Your task to perform on an android device: Do I have any events today? Image 0: 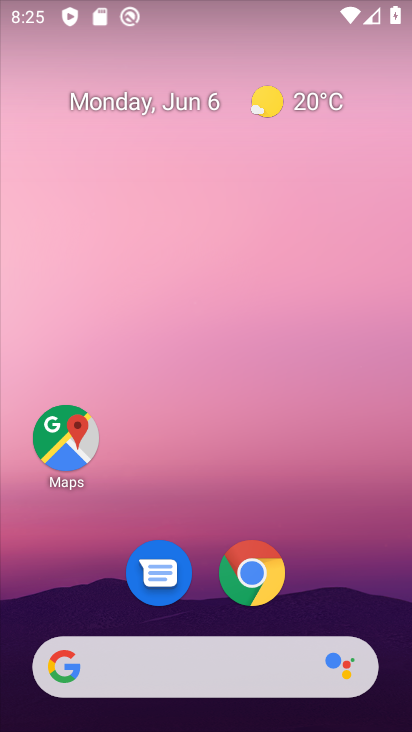
Step 0: drag from (306, 719) to (225, 264)
Your task to perform on an android device: Do I have any events today? Image 1: 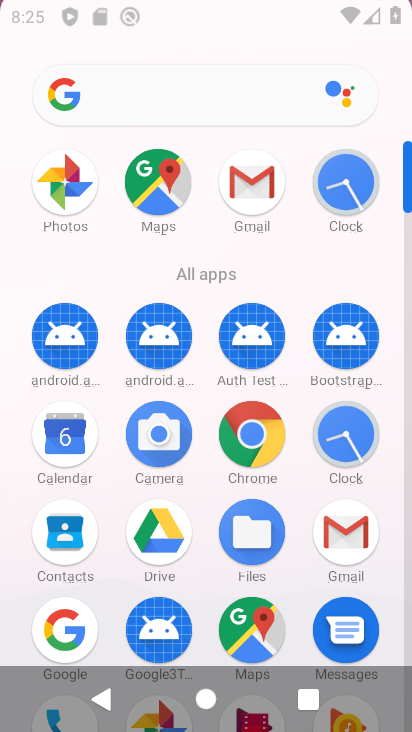
Step 1: drag from (277, 487) to (219, 101)
Your task to perform on an android device: Do I have any events today? Image 2: 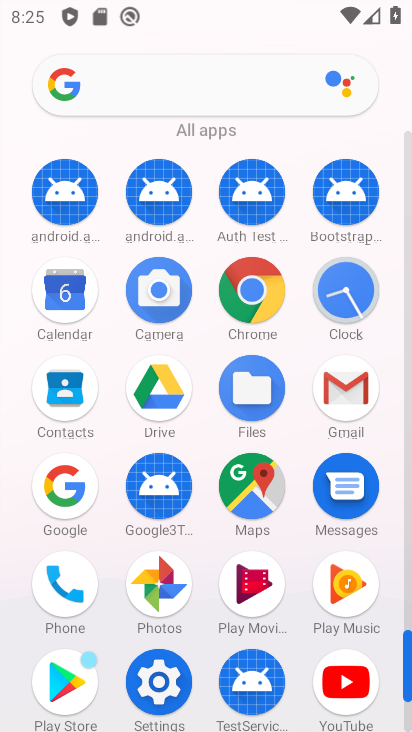
Step 2: click (67, 296)
Your task to perform on an android device: Do I have any events today? Image 3: 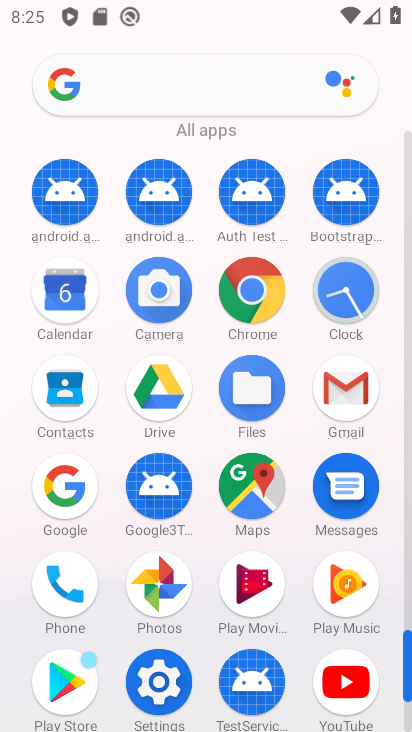
Step 3: click (67, 296)
Your task to perform on an android device: Do I have any events today? Image 4: 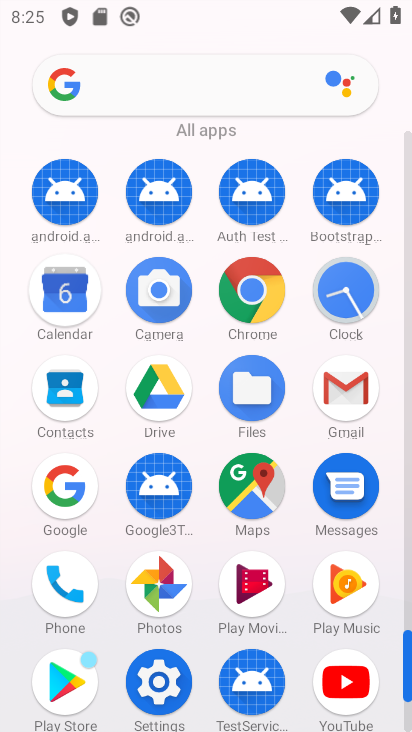
Step 4: click (62, 297)
Your task to perform on an android device: Do I have any events today? Image 5: 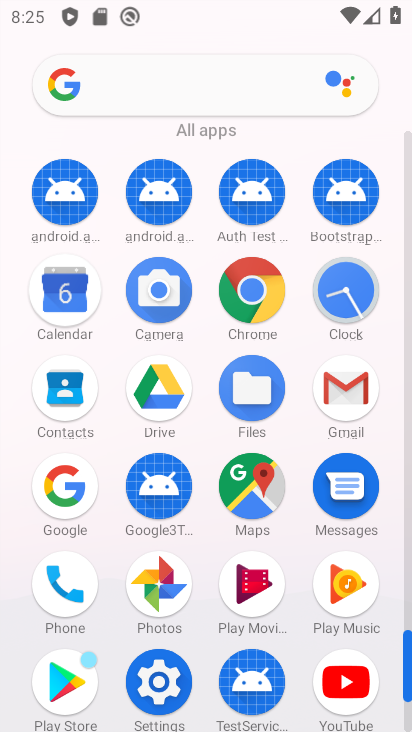
Step 5: click (59, 294)
Your task to perform on an android device: Do I have any events today? Image 6: 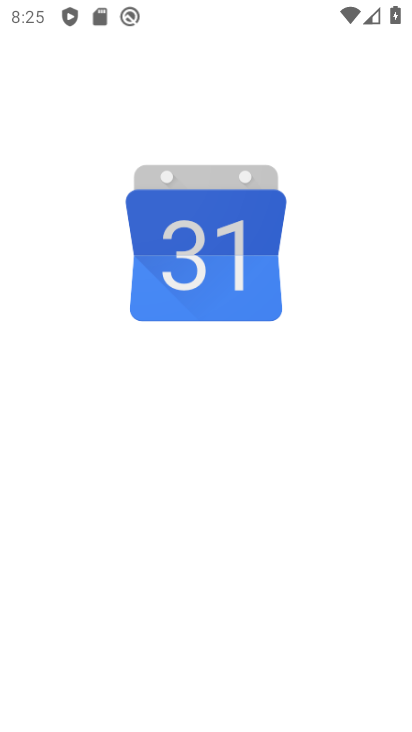
Step 6: click (56, 292)
Your task to perform on an android device: Do I have any events today? Image 7: 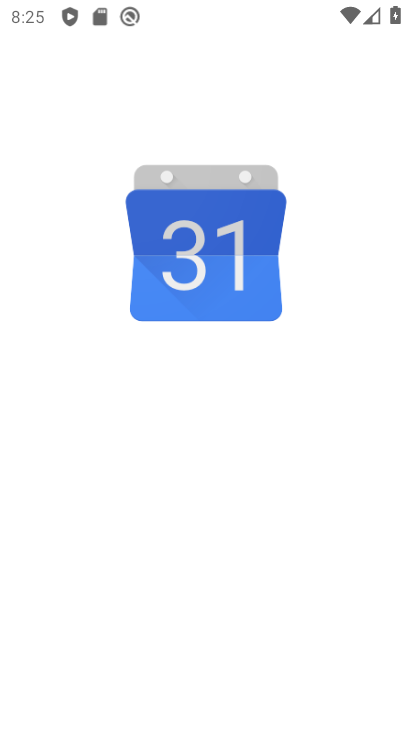
Step 7: click (54, 292)
Your task to perform on an android device: Do I have any events today? Image 8: 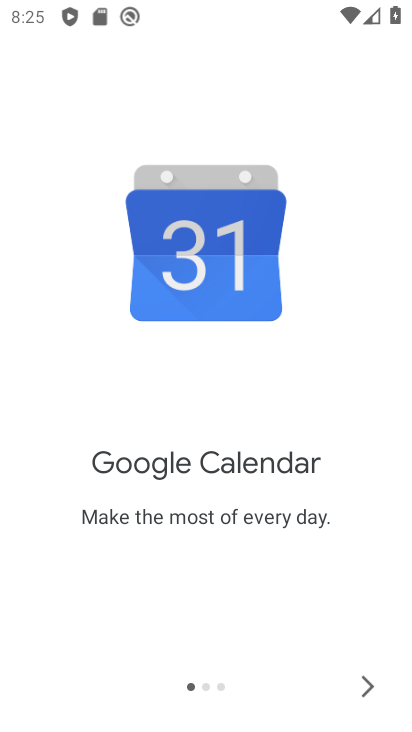
Step 8: click (365, 681)
Your task to perform on an android device: Do I have any events today? Image 9: 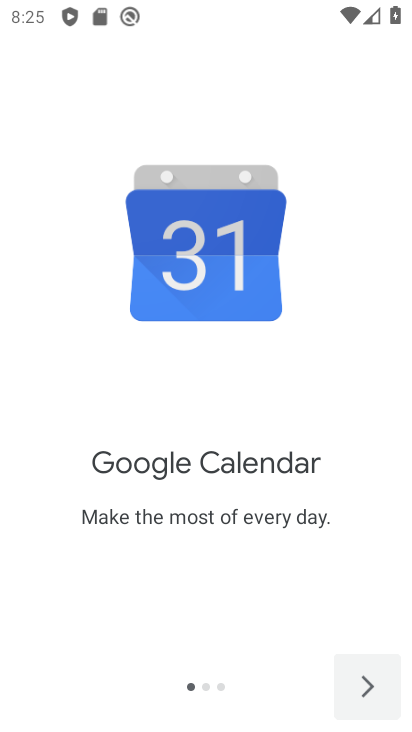
Step 9: click (365, 681)
Your task to perform on an android device: Do I have any events today? Image 10: 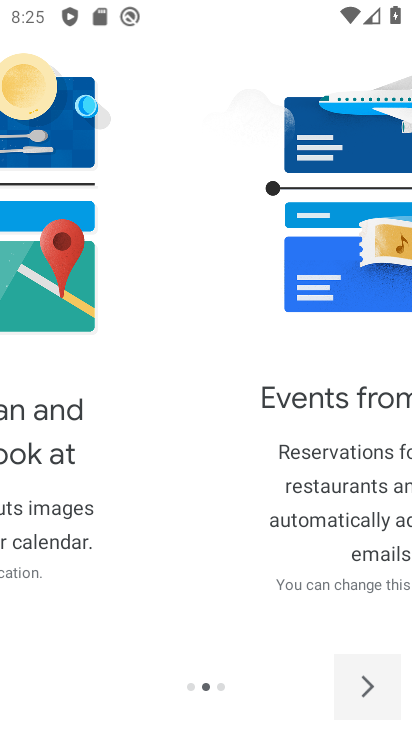
Step 10: click (368, 681)
Your task to perform on an android device: Do I have any events today? Image 11: 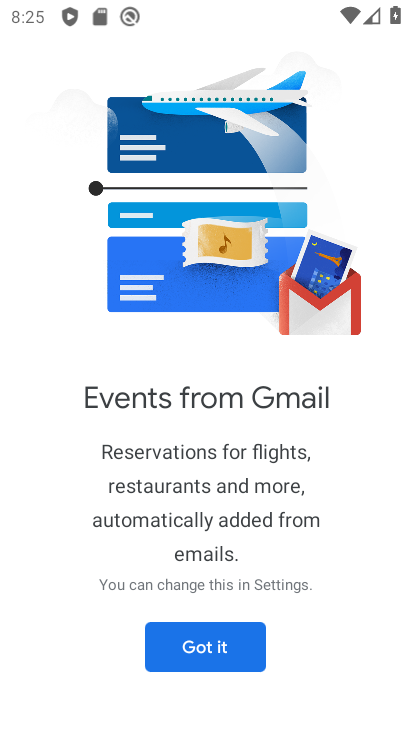
Step 11: click (369, 681)
Your task to perform on an android device: Do I have any events today? Image 12: 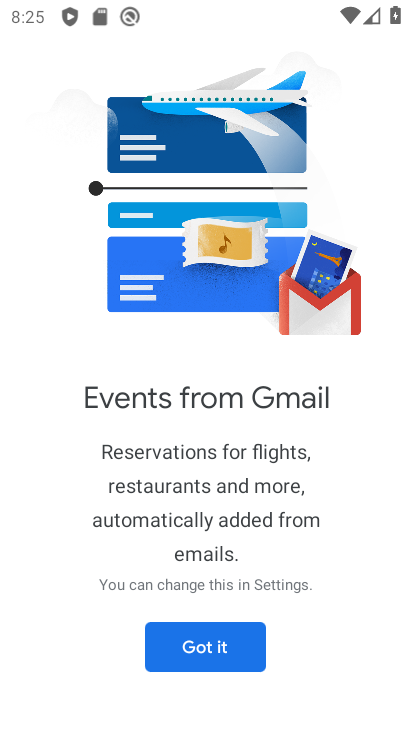
Step 12: click (369, 681)
Your task to perform on an android device: Do I have any events today? Image 13: 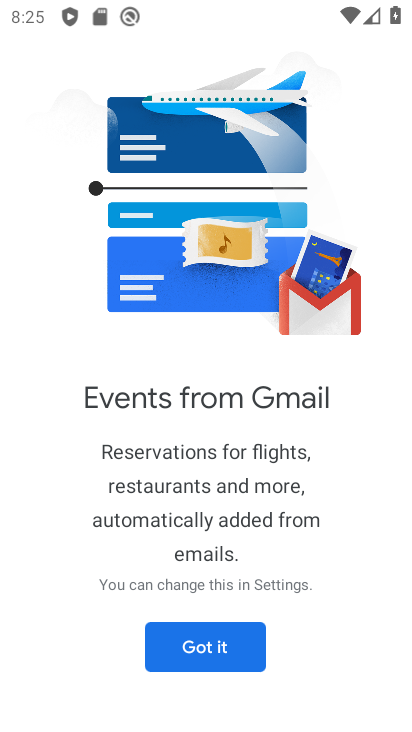
Step 13: click (191, 640)
Your task to perform on an android device: Do I have any events today? Image 14: 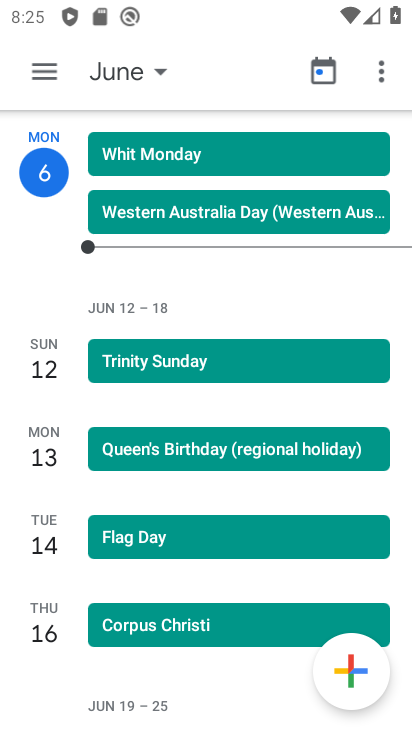
Step 14: click (158, 74)
Your task to perform on an android device: Do I have any events today? Image 15: 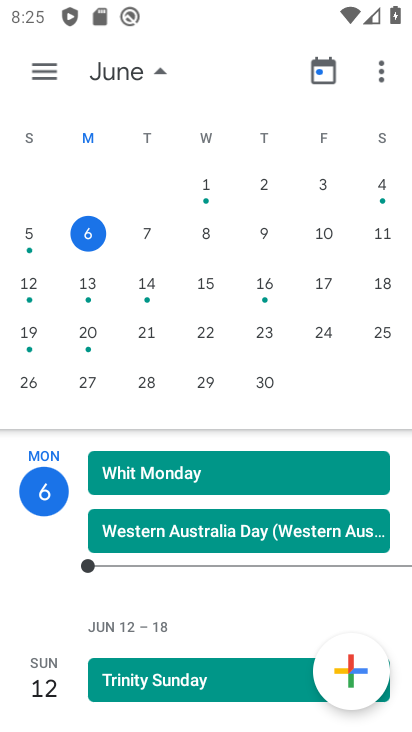
Step 15: click (158, 74)
Your task to perform on an android device: Do I have any events today? Image 16: 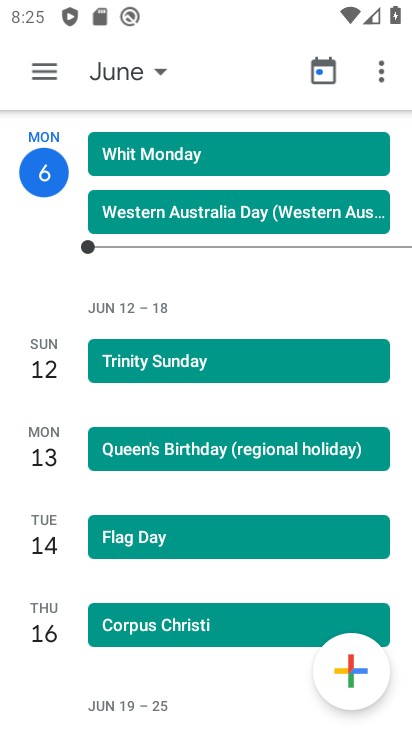
Step 16: click (154, 77)
Your task to perform on an android device: Do I have any events today? Image 17: 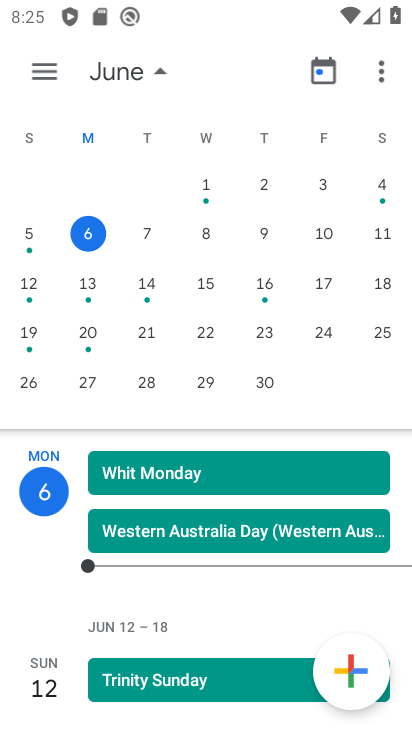
Step 17: click (147, 235)
Your task to perform on an android device: Do I have any events today? Image 18: 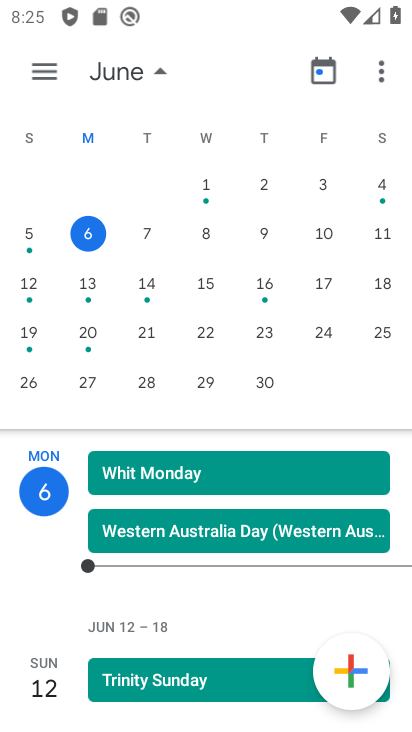
Step 18: click (147, 235)
Your task to perform on an android device: Do I have any events today? Image 19: 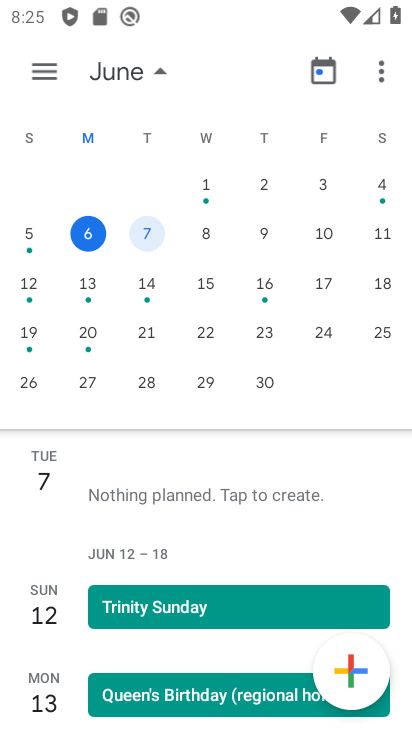
Step 19: click (147, 235)
Your task to perform on an android device: Do I have any events today? Image 20: 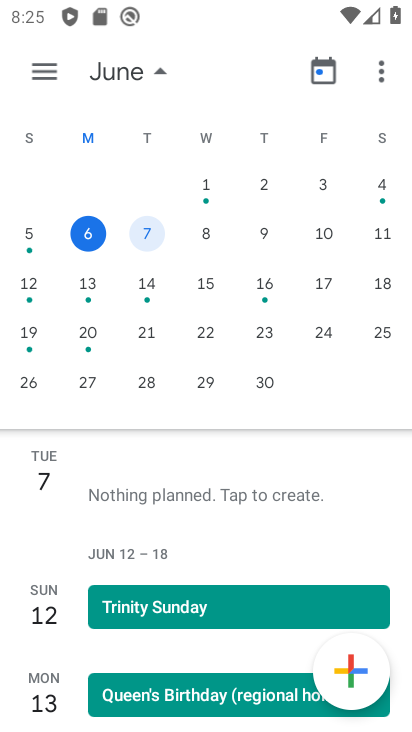
Step 20: click (143, 231)
Your task to perform on an android device: Do I have any events today? Image 21: 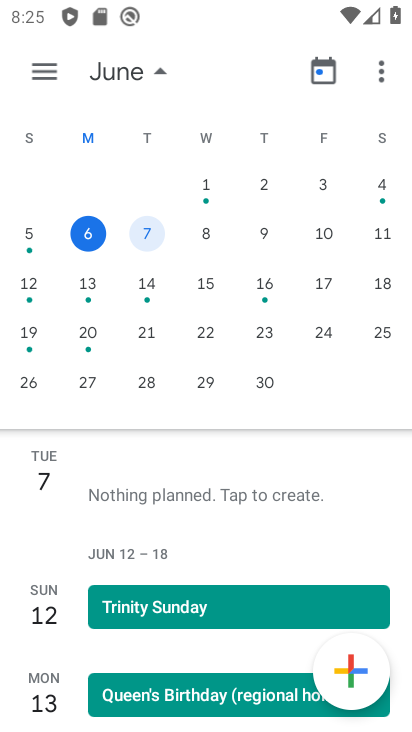
Step 21: task complete